Your task to perform on an android device: read, delete, or share a saved page in the chrome app Image 0: 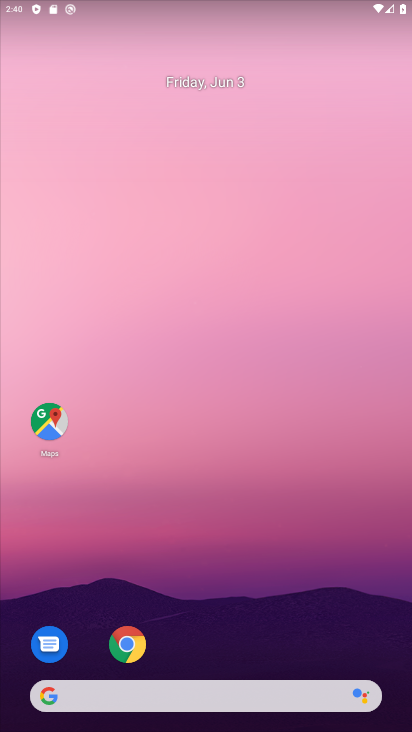
Step 0: press home button
Your task to perform on an android device: read, delete, or share a saved page in the chrome app Image 1: 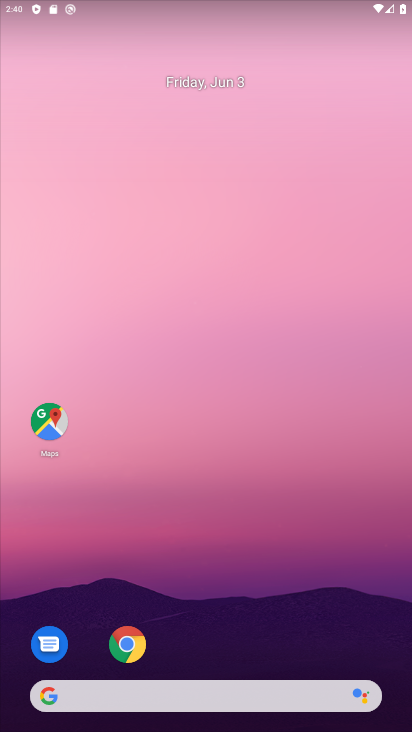
Step 1: click (131, 642)
Your task to perform on an android device: read, delete, or share a saved page in the chrome app Image 2: 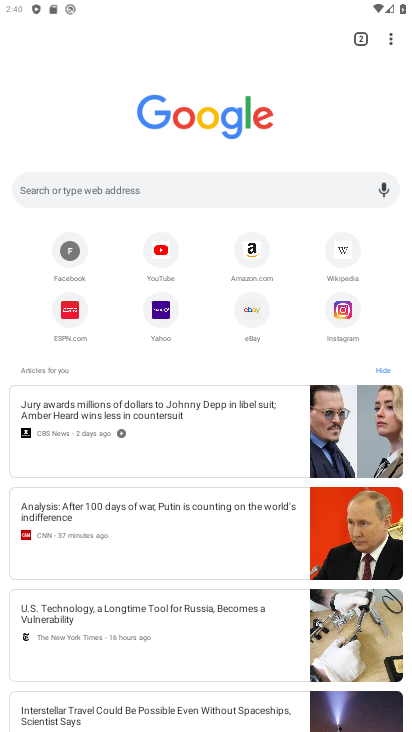
Step 2: click (383, 38)
Your task to perform on an android device: read, delete, or share a saved page in the chrome app Image 3: 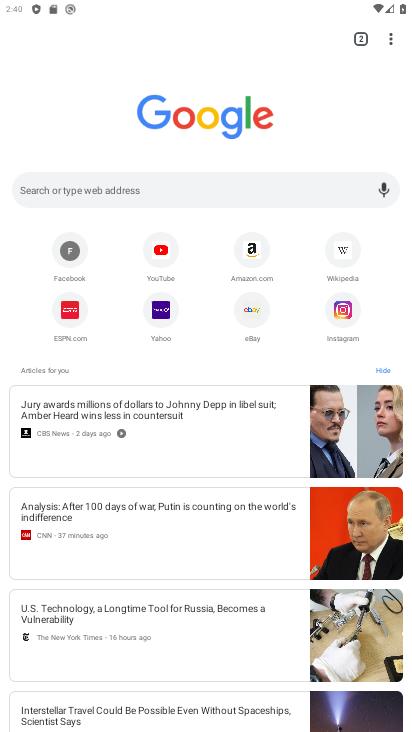
Step 3: click (383, 38)
Your task to perform on an android device: read, delete, or share a saved page in the chrome app Image 4: 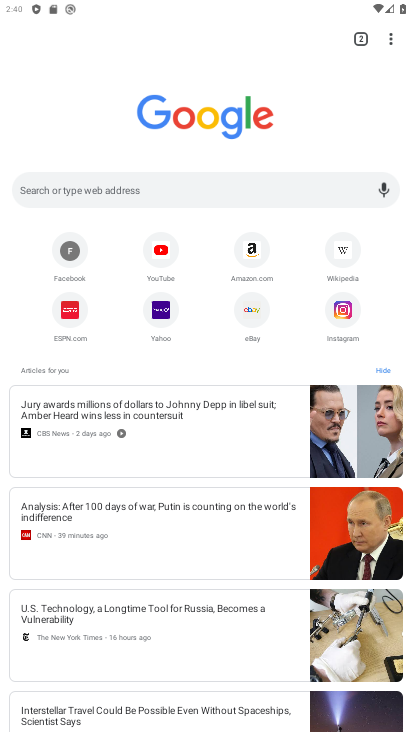
Step 4: drag from (396, 39) to (255, 261)
Your task to perform on an android device: read, delete, or share a saved page in the chrome app Image 5: 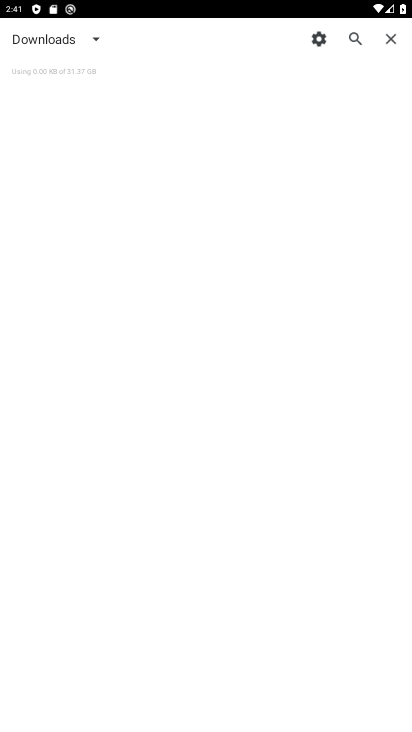
Step 5: click (87, 40)
Your task to perform on an android device: read, delete, or share a saved page in the chrome app Image 6: 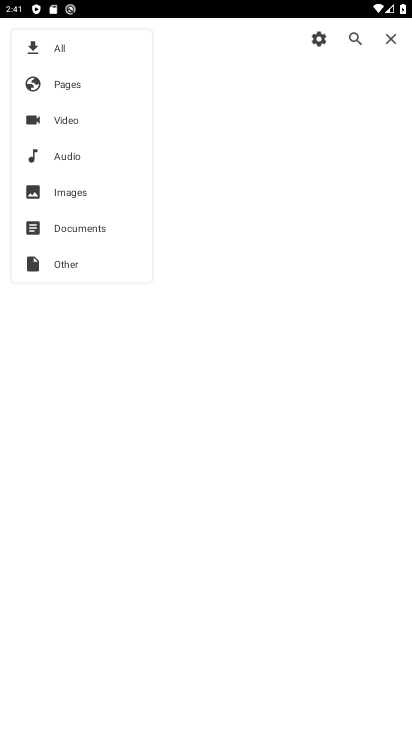
Step 6: click (56, 87)
Your task to perform on an android device: read, delete, or share a saved page in the chrome app Image 7: 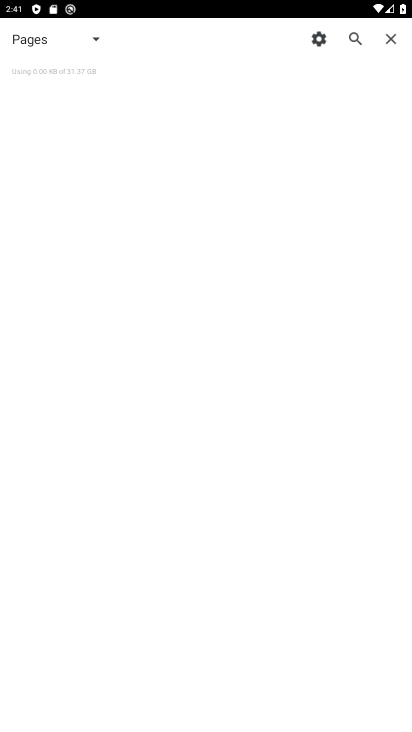
Step 7: task complete